Your task to perform on an android device: change alarm snooze length Image 0: 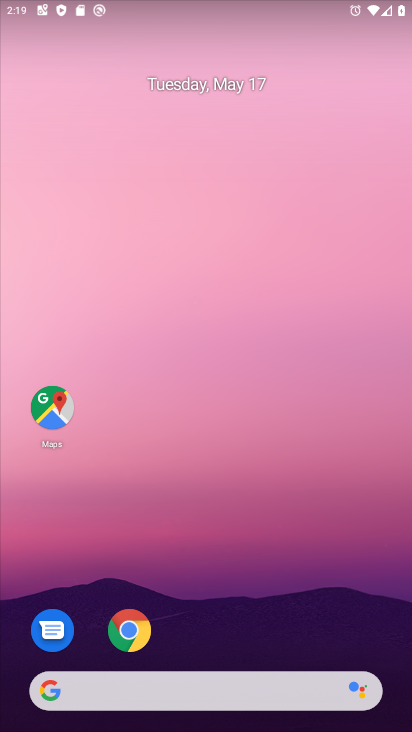
Step 0: drag from (311, 622) to (302, 221)
Your task to perform on an android device: change alarm snooze length Image 1: 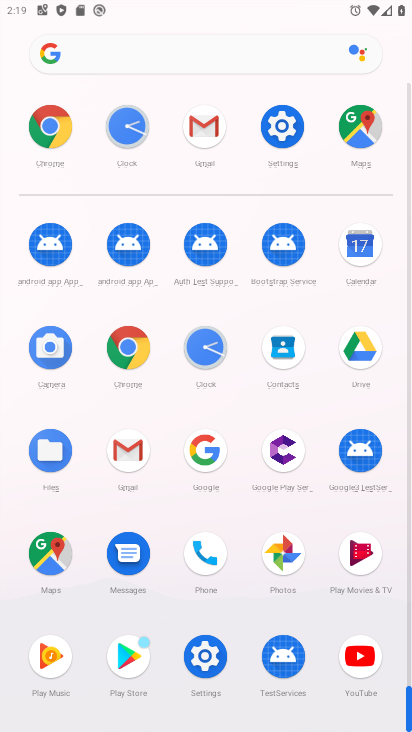
Step 1: click (213, 364)
Your task to perform on an android device: change alarm snooze length Image 2: 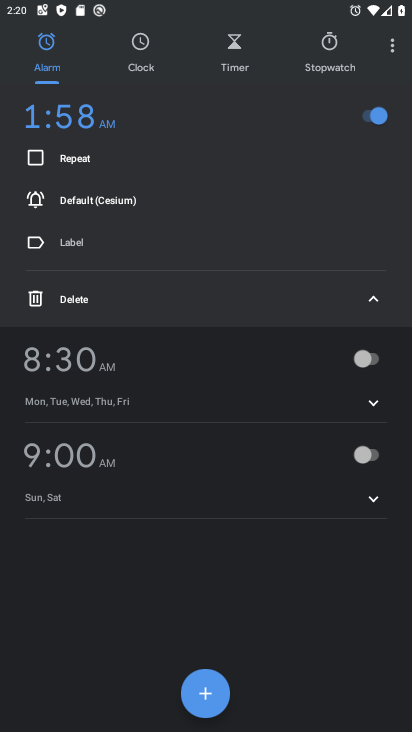
Step 2: click (385, 49)
Your task to perform on an android device: change alarm snooze length Image 3: 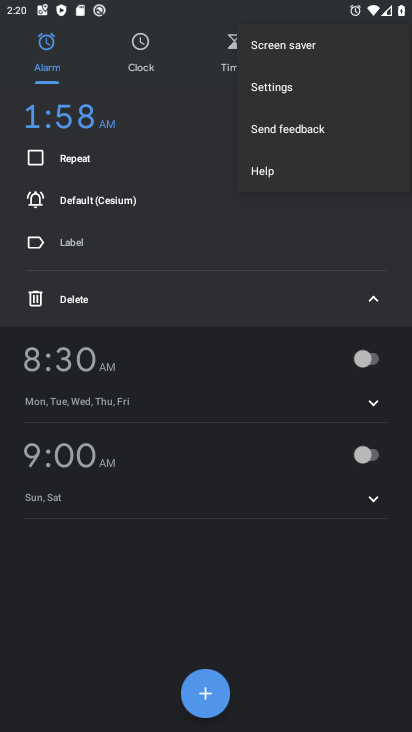
Step 3: click (323, 98)
Your task to perform on an android device: change alarm snooze length Image 4: 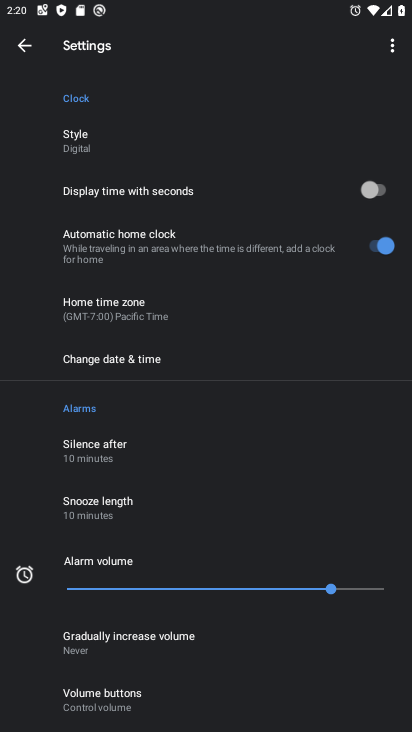
Step 4: click (202, 505)
Your task to perform on an android device: change alarm snooze length Image 5: 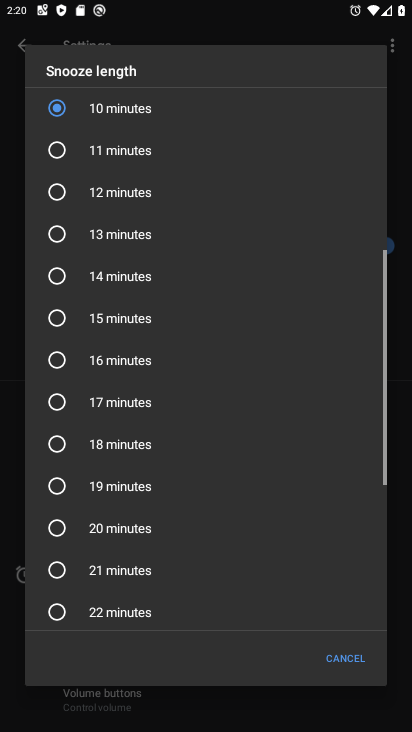
Step 5: click (145, 358)
Your task to perform on an android device: change alarm snooze length Image 6: 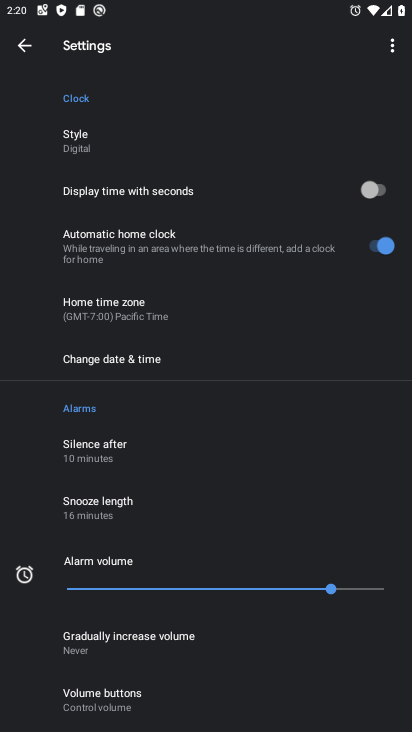
Step 6: task complete